Your task to perform on an android device: read, delete, or share a saved page in the chrome app Image 0: 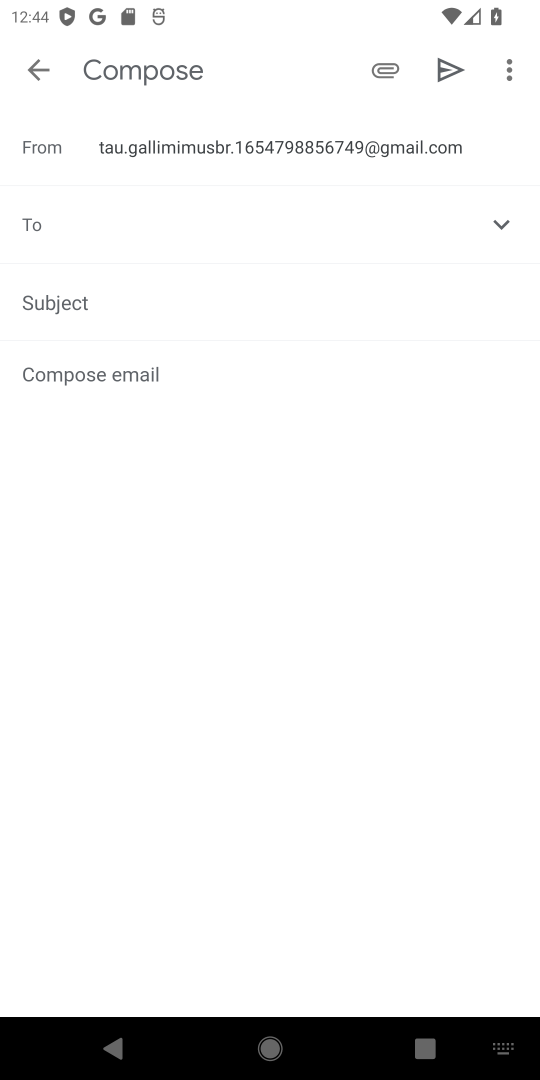
Step 0: press home button
Your task to perform on an android device: read, delete, or share a saved page in the chrome app Image 1: 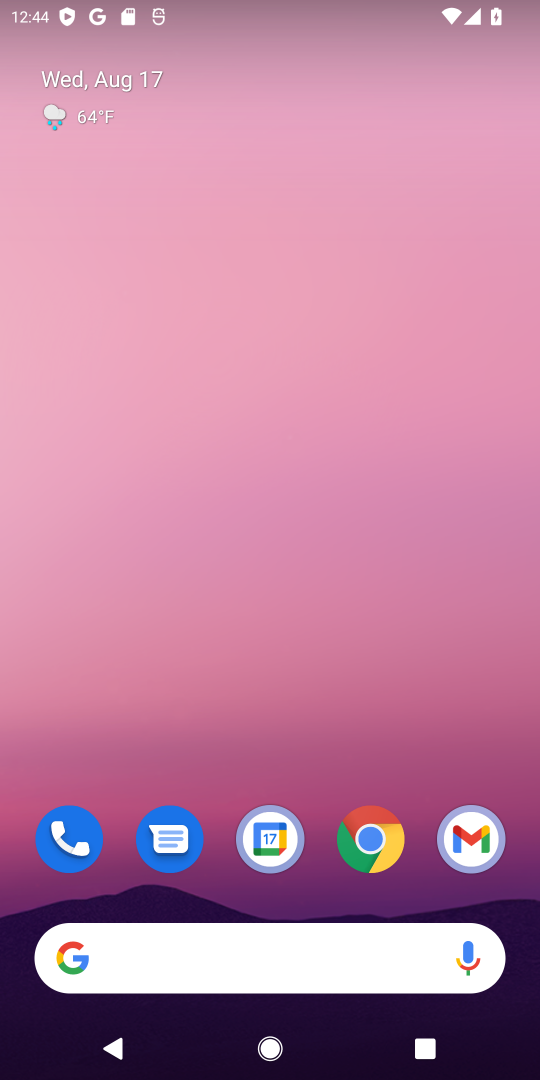
Step 1: click (372, 836)
Your task to perform on an android device: read, delete, or share a saved page in the chrome app Image 2: 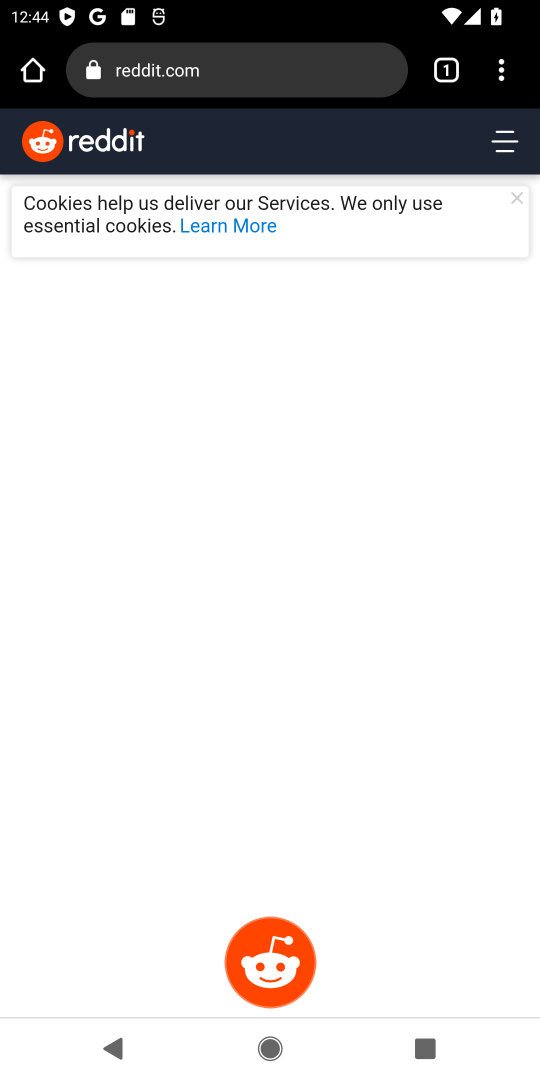
Step 2: task complete